Your task to perform on an android device: star an email in the gmail app Image 0: 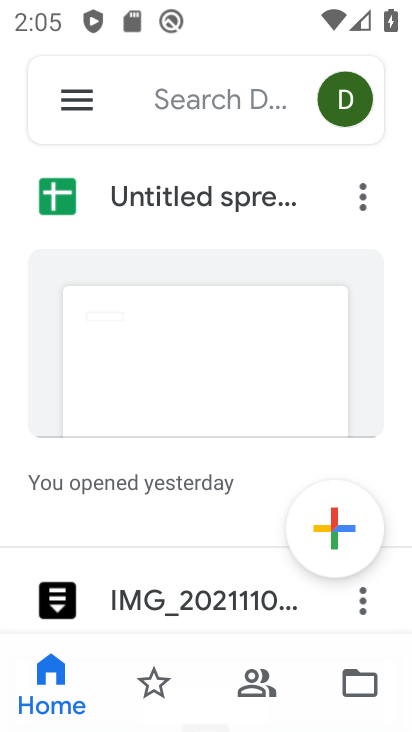
Step 0: press home button
Your task to perform on an android device: star an email in the gmail app Image 1: 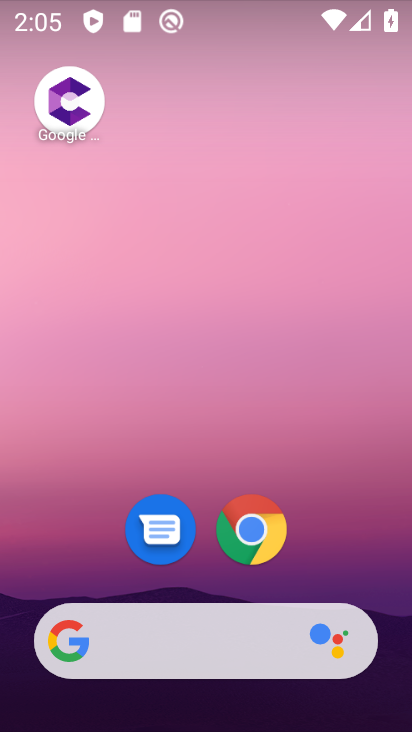
Step 1: drag from (190, 650) to (272, 193)
Your task to perform on an android device: star an email in the gmail app Image 2: 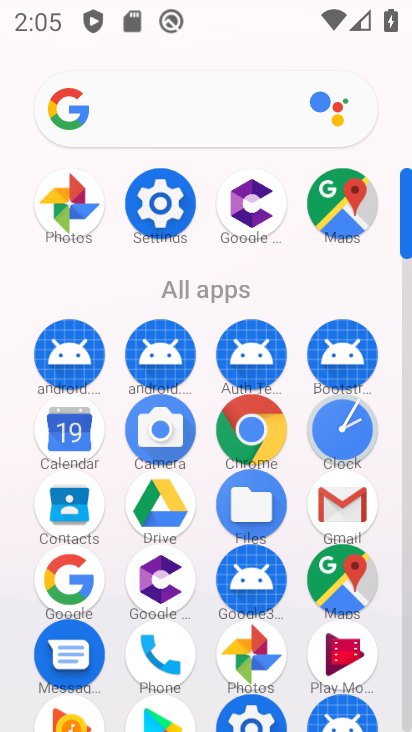
Step 2: click (335, 510)
Your task to perform on an android device: star an email in the gmail app Image 3: 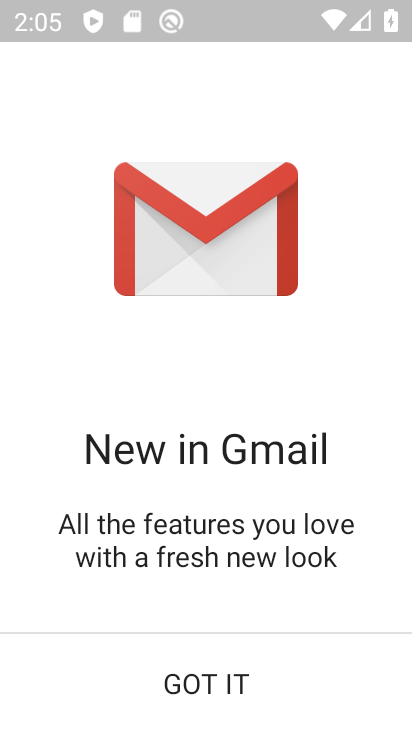
Step 3: click (193, 680)
Your task to perform on an android device: star an email in the gmail app Image 4: 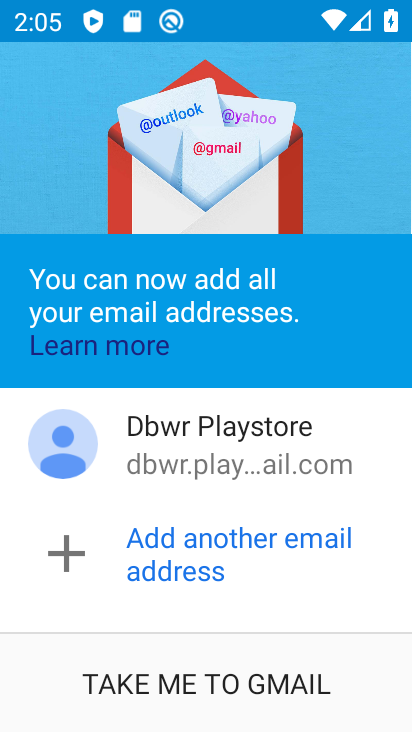
Step 4: click (193, 679)
Your task to perform on an android device: star an email in the gmail app Image 5: 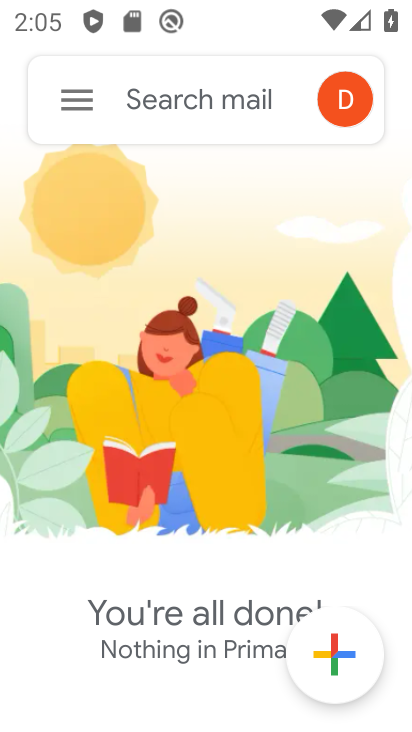
Step 5: task complete